Your task to perform on an android device: set default search engine in the chrome app Image 0: 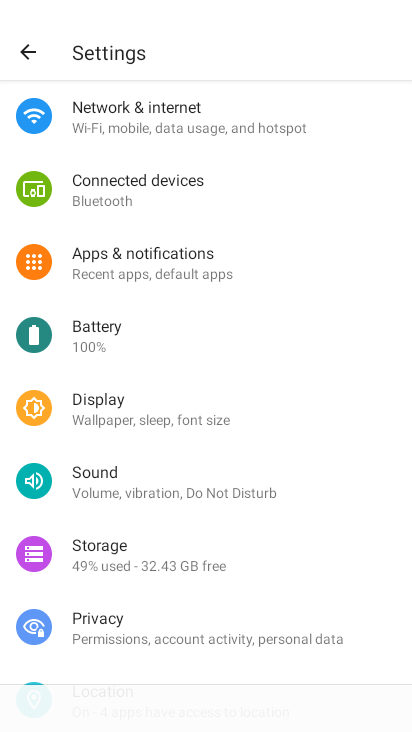
Step 0: press home button
Your task to perform on an android device: set default search engine in the chrome app Image 1: 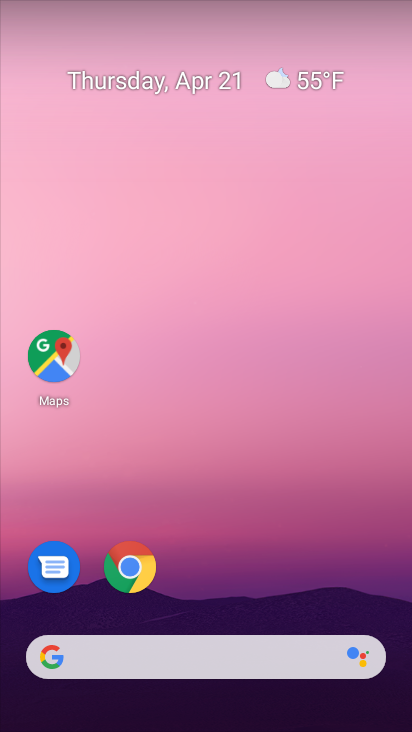
Step 1: click (129, 566)
Your task to perform on an android device: set default search engine in the chrome app Image 2: 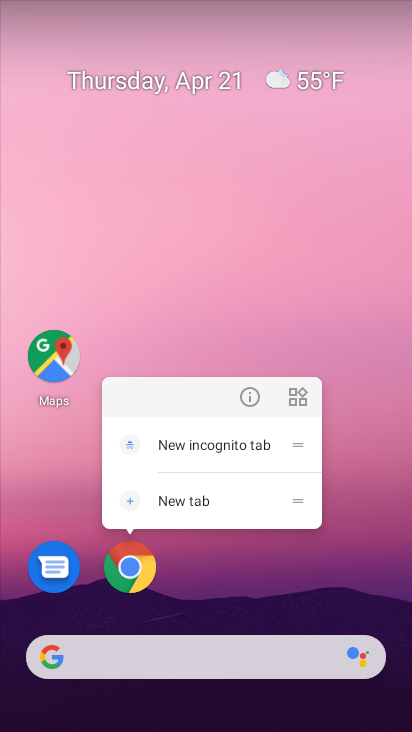
Step 2: click (129, 566)
Your task to perform on an android device: set default search engine in the chrome app Image 3: 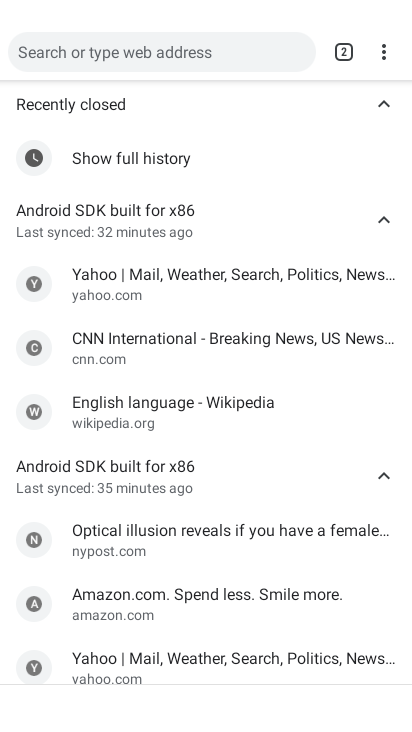
Step 3: click (382, 58)
Your task to perform on an android device: set default search engine in the chrome app Image 4: 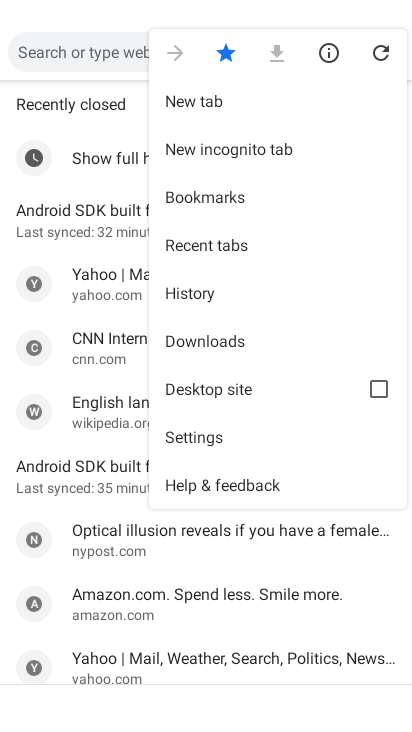
Step 4: click (198, 432)
Your task to perform on an android device: set default search engine in the chrome app Image 5: 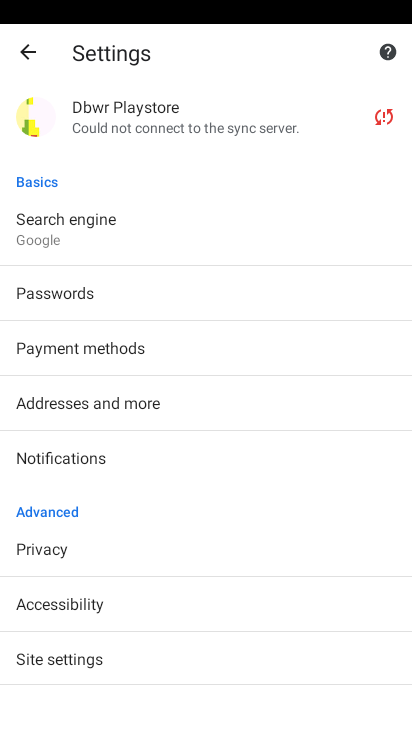
Step 5: click (46, 217)
Your task to perform on an android device: set default search engine in the chrome app Image 6: 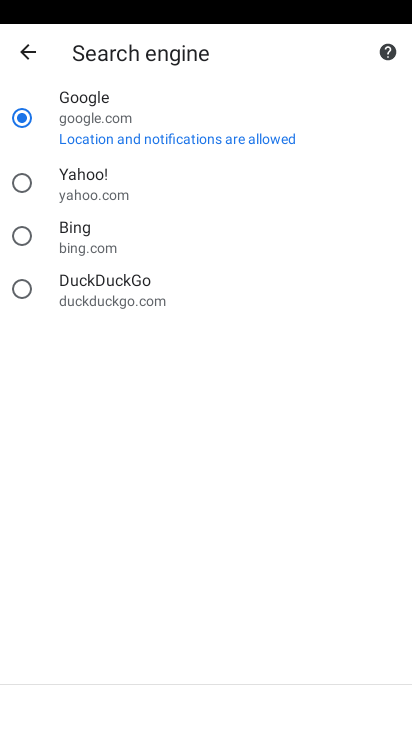
Step 6: click (18, 181)
Your task to perform on an android device: set default search engine in the chrome app Image 7: 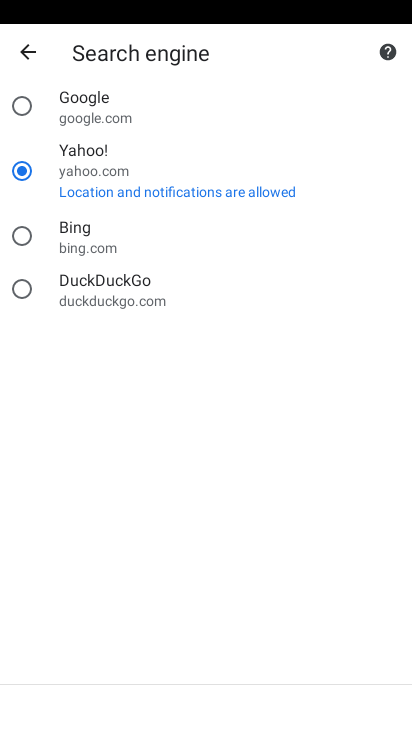
Step 7: task complete